Your task to perform on an android device: Open Reddit.com Image 0: 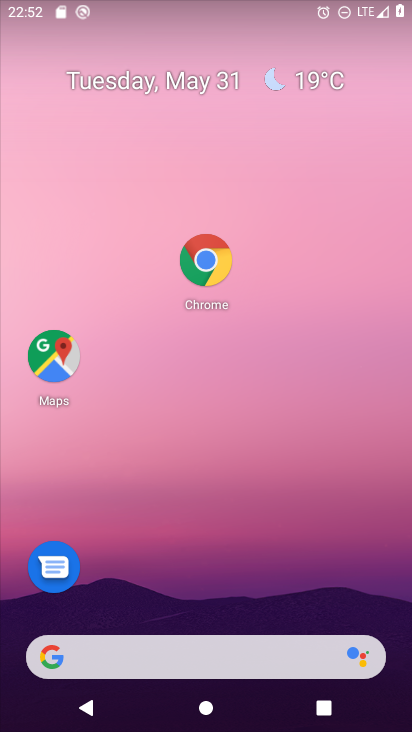
Step 0: click (66, 364)
Your task to perform on an android device: Open Reddit.com Image 1: 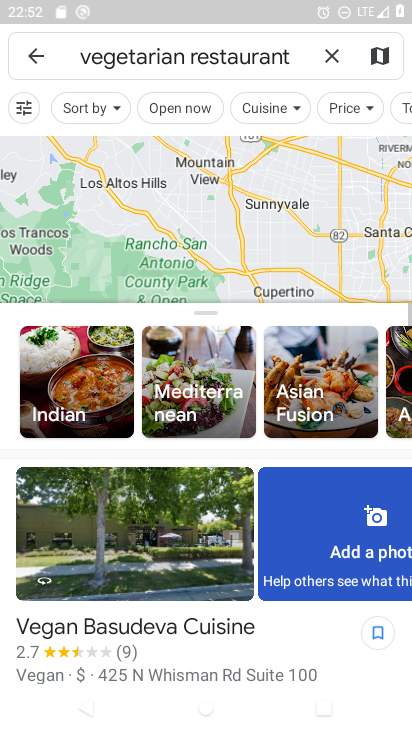
Step 1: press home button
Your task to perform on an android device: Open Reddit.com Image 2: 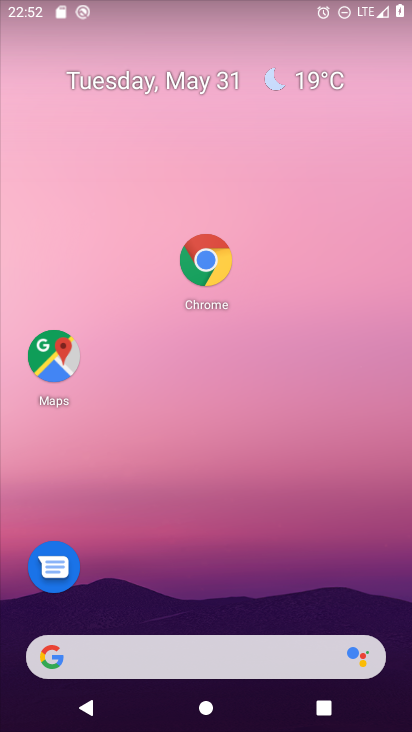
Step 2: drag from (195, 641) to (232, 284)
Your task to perform on an android device: Open Reddit.com Image 3: 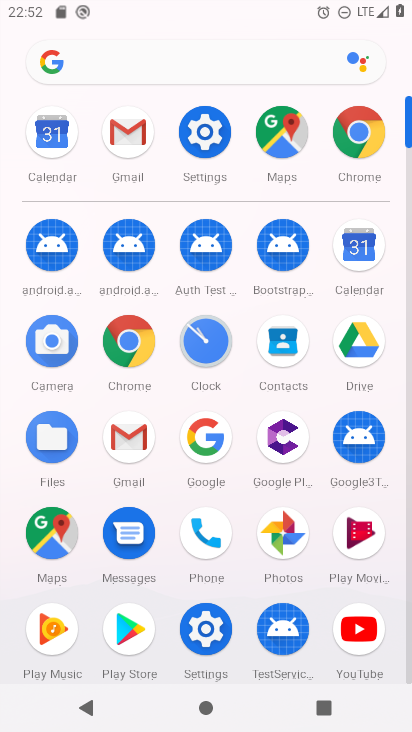
Step 3: click (200, 437)
Your task to perform on an android device: Open Reddit.com Image 4: 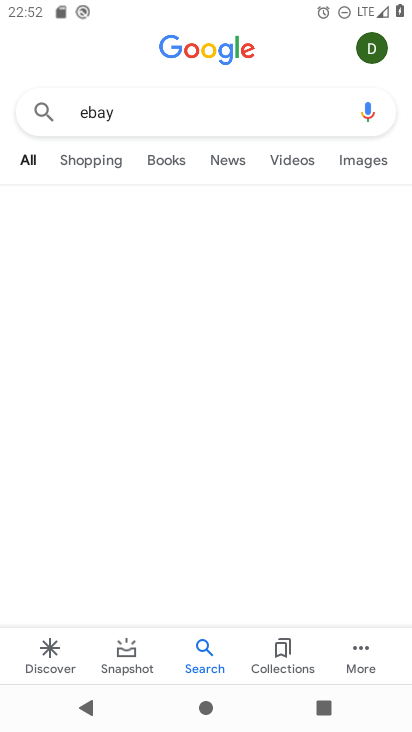
Step 4: click (144, 126)
Your task to perform on an android device: Open Reddit.com Image 5: 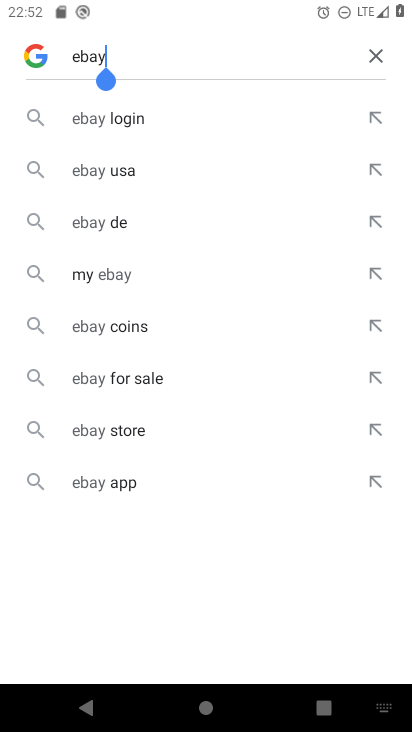
Step 5: click (373, 62)
Your task to perform on an android device: Open Reddit.com Image 6: 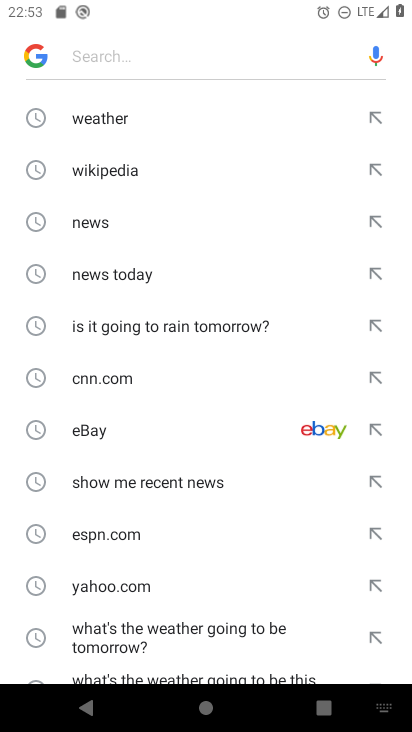
Step 6: drag from (160, 652) to (250, 246)
Your task to perform on an android device: Open Reddit.com Image 7: 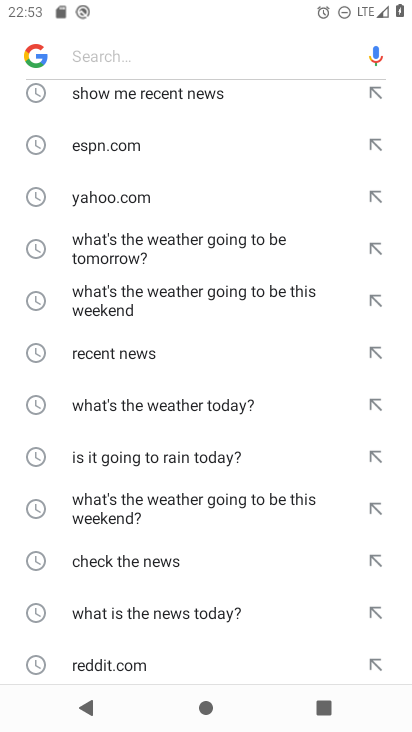
Step 7: drag from (160, 622) to (161, 469)
Your task to perform on an android device: Open Reddit.com Image 8: 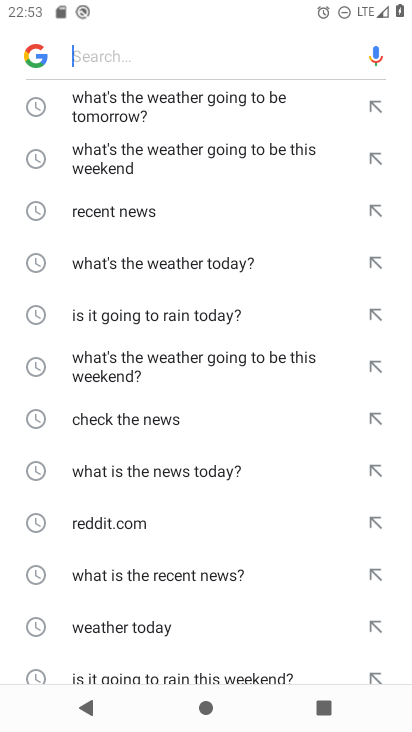
Step 8: click (105, 532)
Your task to perform on an android device: Open Reddit.com Image 9: 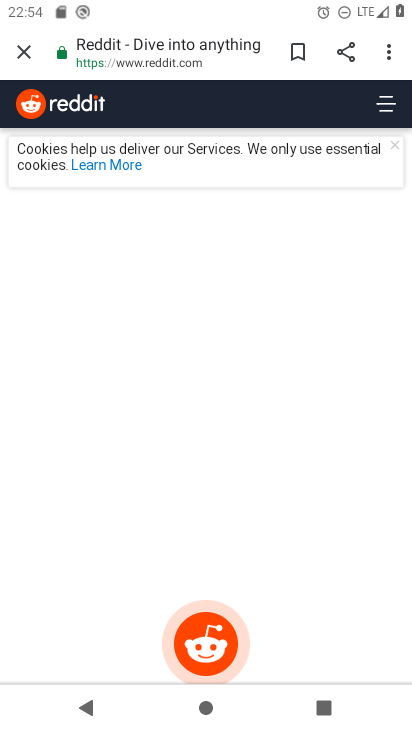
Step 9: task complete